Your task to perform on an android device: Set an alarm for 7pm Image 0: 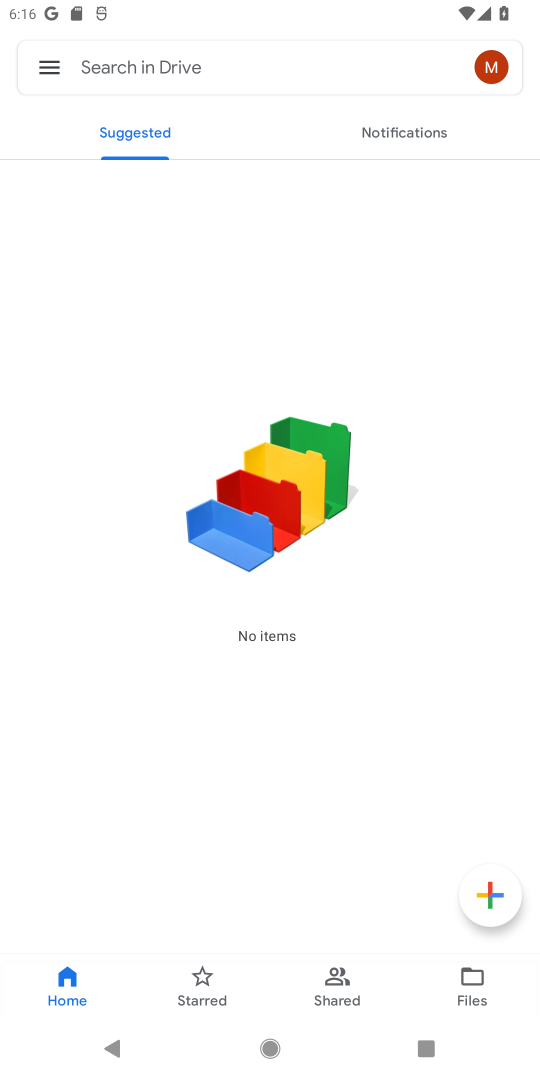
Step 0: task complete